Your task to perform on an android device: Check the weather Image 0: 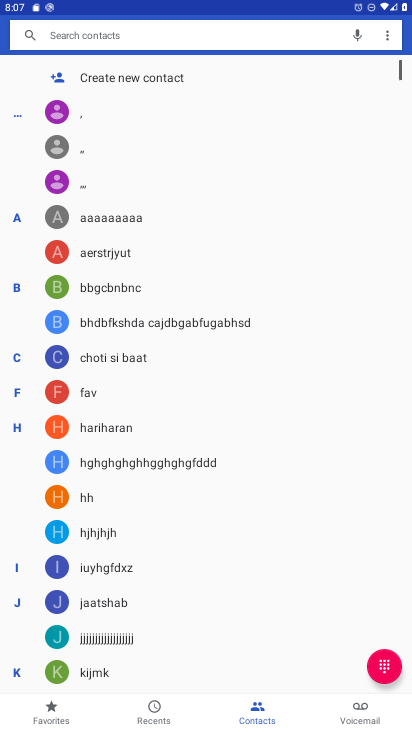
Step 0: press home button
Your task to perform on an android device: Check the weather Image 1: 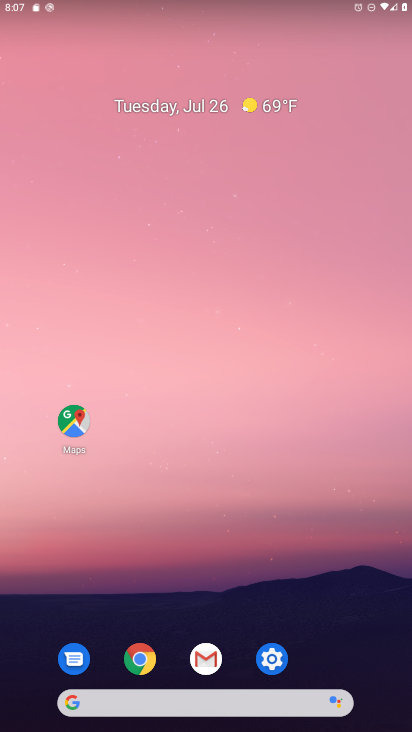
Step 1: click (148, 706)
Your task to perform on an android device: Check the weather Image 2: 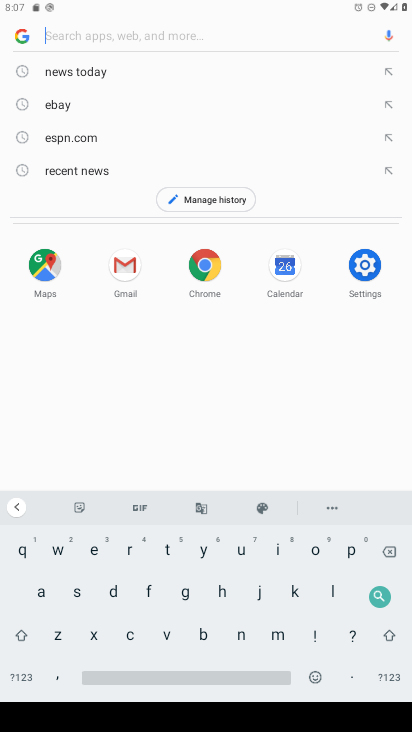
Step 2: click (49, 546)
Your task to perform on an android device: Check the weather Image 3: 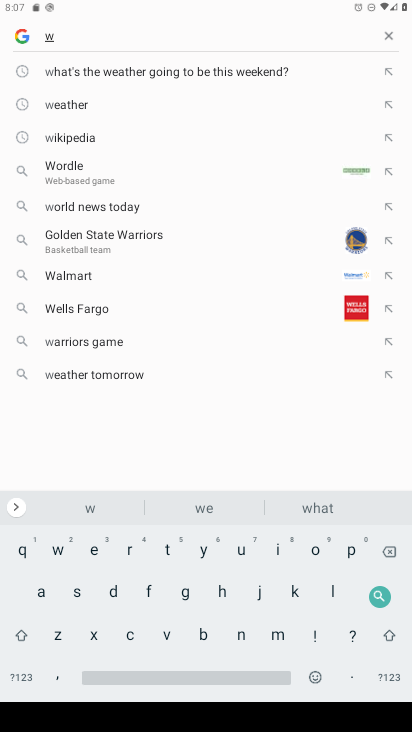
Step 3: click (81, 101)
Your task to perform on an android device: Check the weather Image 4: 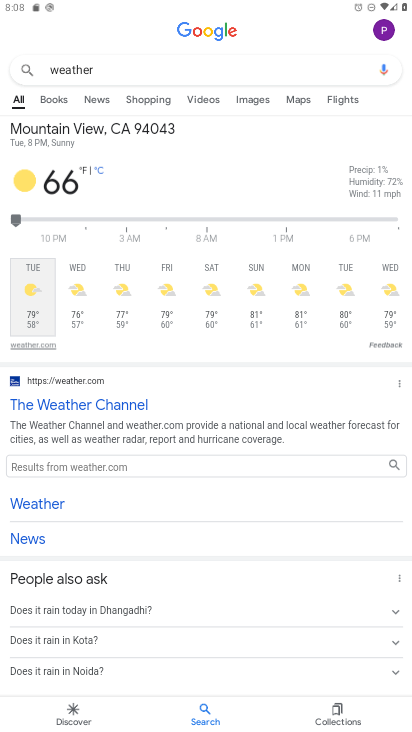
Step 4: task complete